Your task to perform on an android device: create a new album in the google photos Image 0: 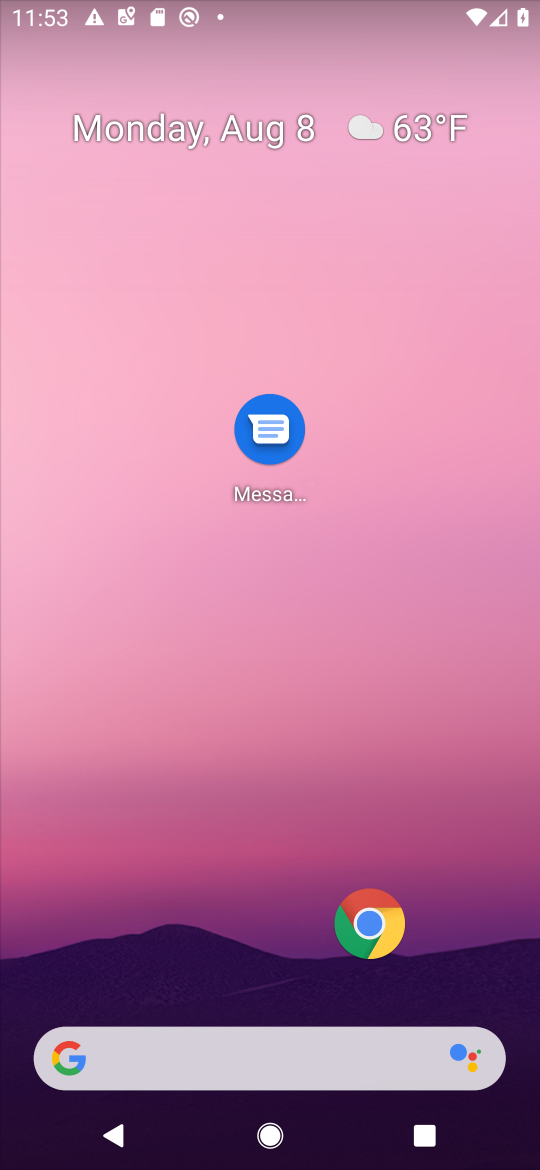
Step 0: drag from (27, 1113) to (428, 182)
Your task to perform on an android device: create a new album in the google photos Image 1: 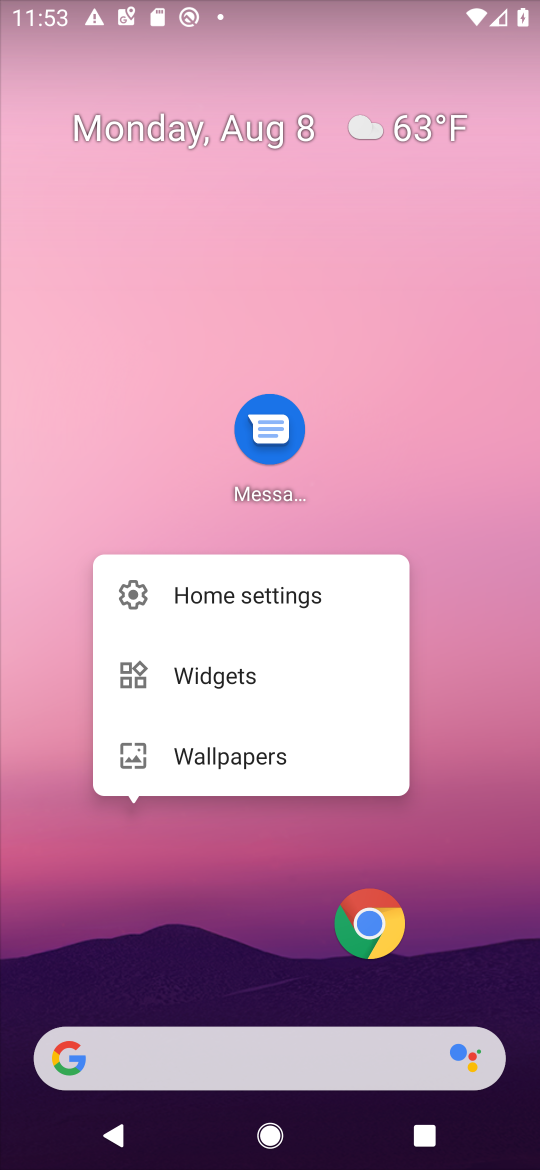
Step 1: drag from (34, 1097) to (386, 93)
Your task to perform on an android device: create a new album in the google photos Image 2: 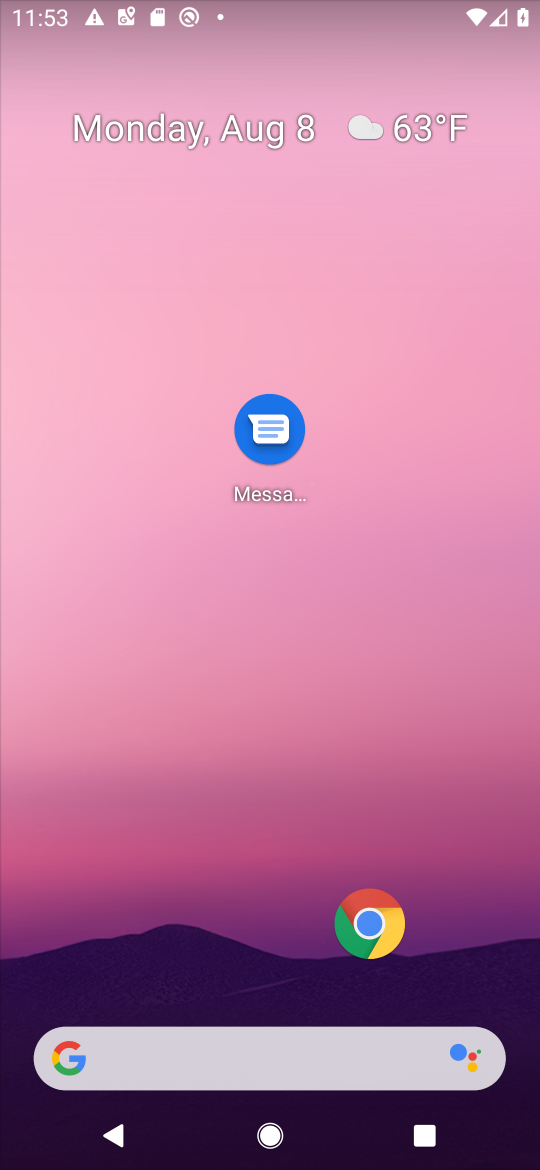
Step 2: drag from (2, 1091) to (315, 405)
Your task to perform on an android device: create a new album in the google photos Image 3: 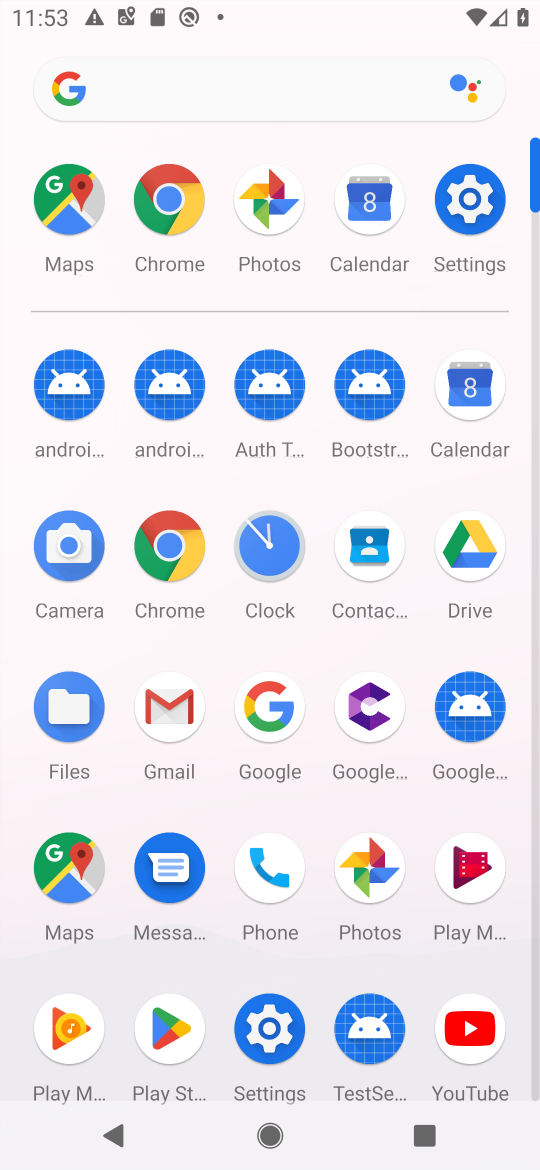
Step 3: click (376, 865)
Your task to perform on an android device: create a new album in the google photos Image 4: 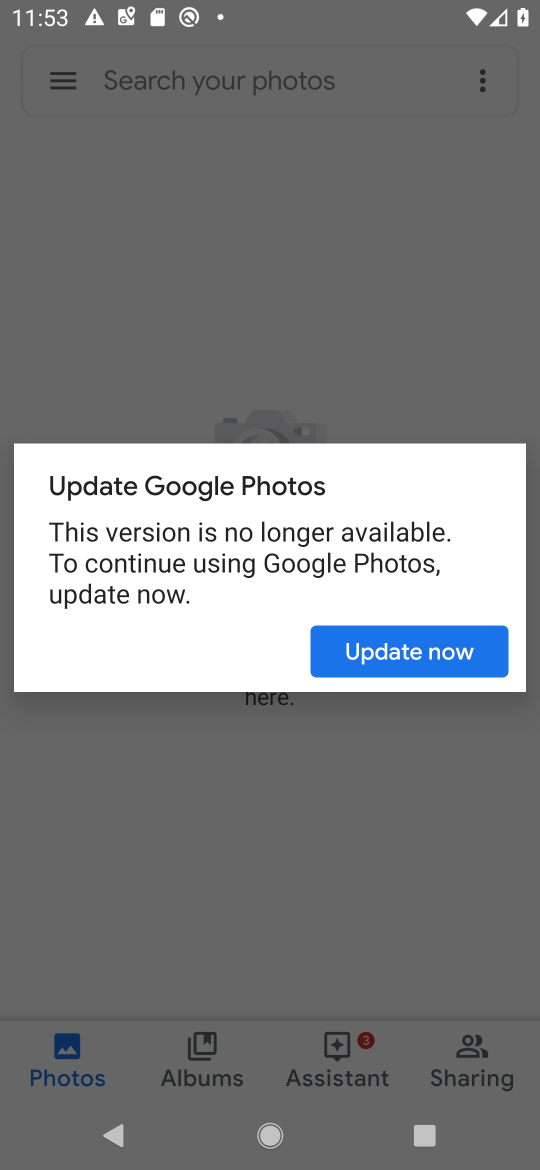
Step 4: click (393, 644)
Your task to perform on an android device: create a new album in the google photos Image 5: 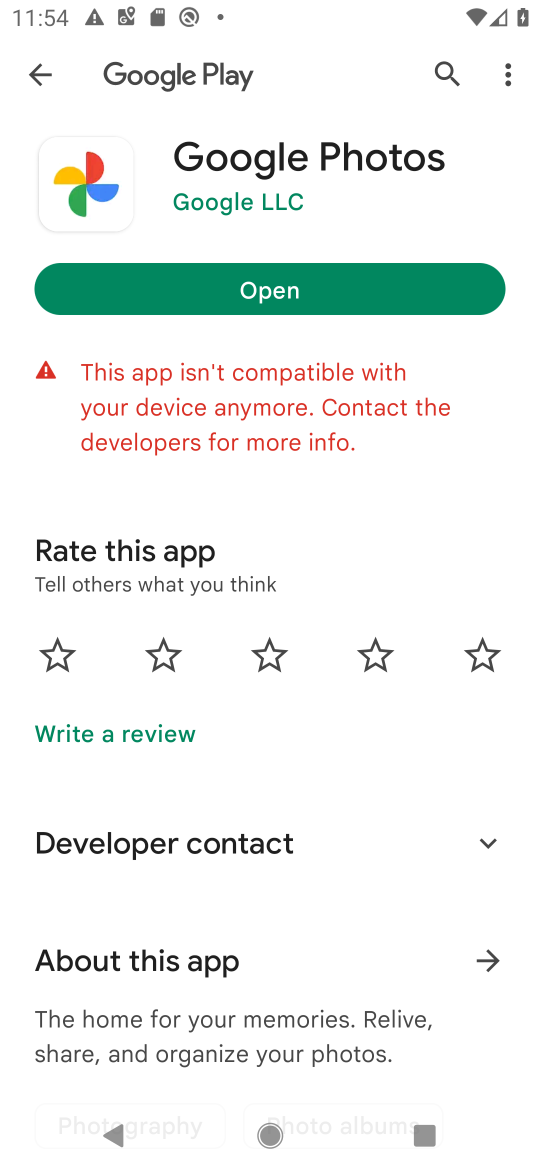
Step 5: click (213, 276)
Your task to perform on an android device: create a new album in the google photos Image 6: 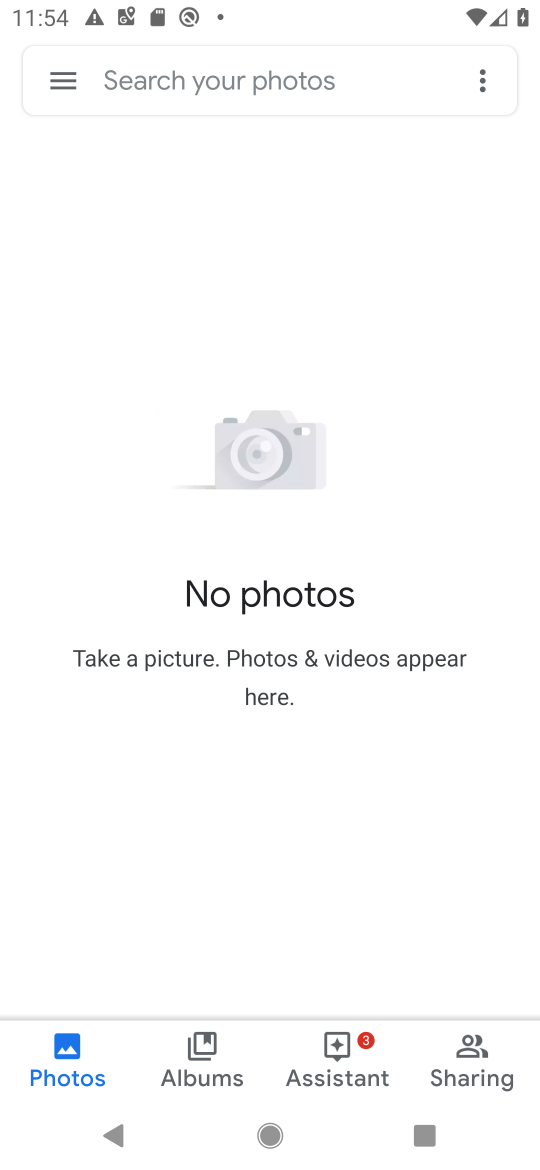
Step 6: task complete